Your task to perform on an android device: make emails show in primary in the gmail app Image 0: 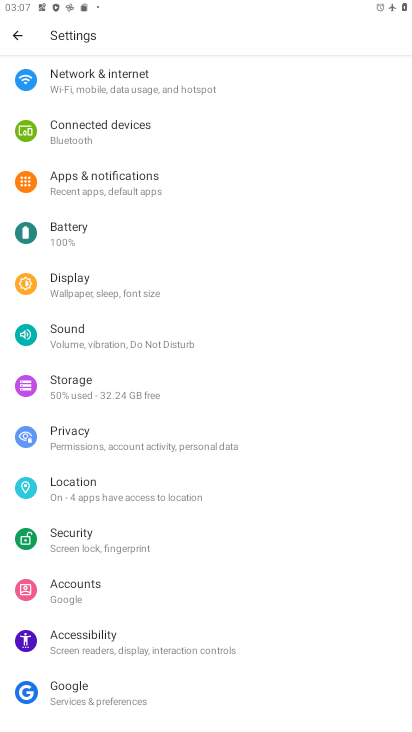
Step 0: drag from (298, 653) to (258, 146)
Your task to perform on an android device: make emails show in primary in the gmail app Image 1: 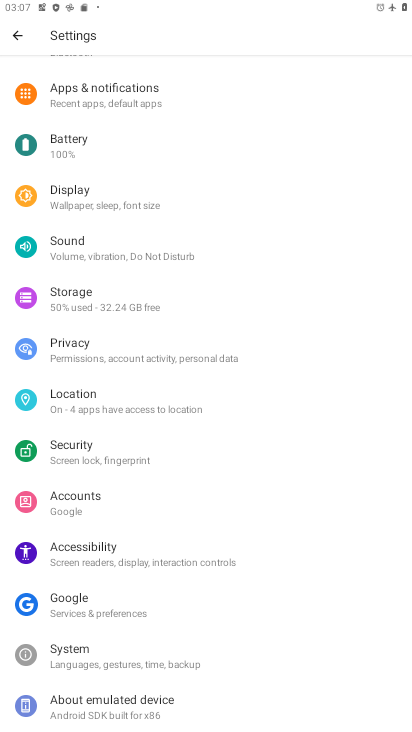
Step 1: press home button
Your task to perform on an android device: make emails show in primary in the gmail app Image 2: 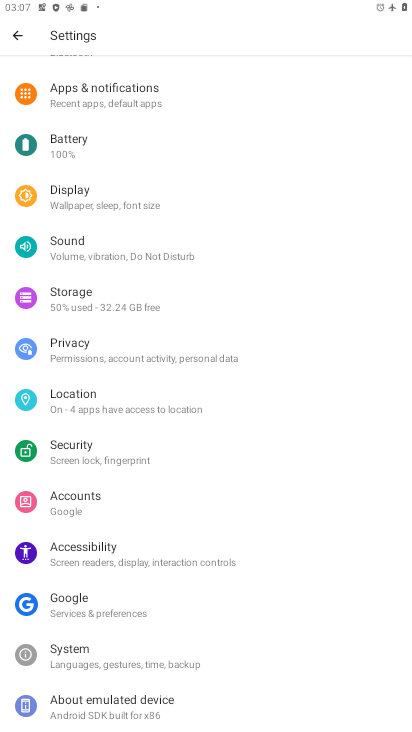
Step 2: press home button
Your task to perform on an android device: make emails show in primary in the gmail app Image 3: 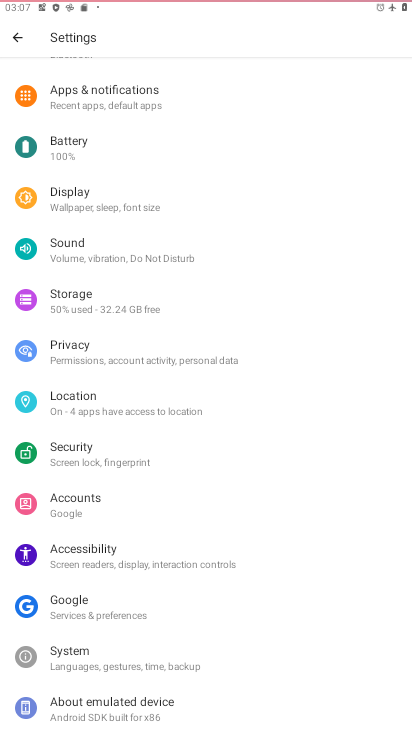
Step 3: drag from (212, 48) to (220, 2)
Your task to perform on an android device: make emails show in primary in the gmail app Image 4: 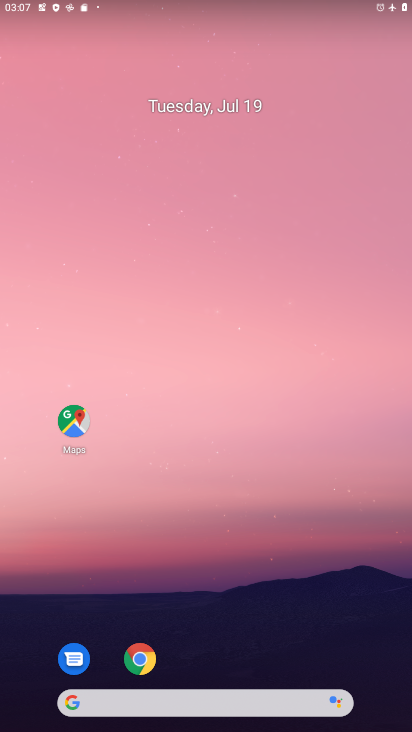
Step 4: drag from (256, 623) to (243, 111)
Your task to perform on an android device: make emails show in primary in the gmail app Image 5: 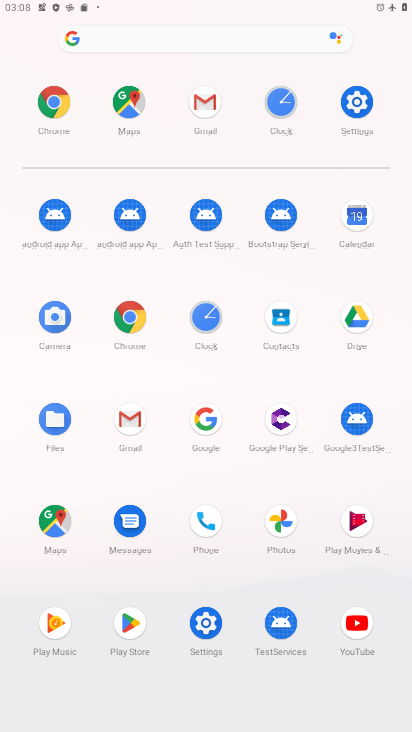
Step 5: click (137, 426)
Your task to perform on an android device: make emails show in primary in the gmail app Image 6: 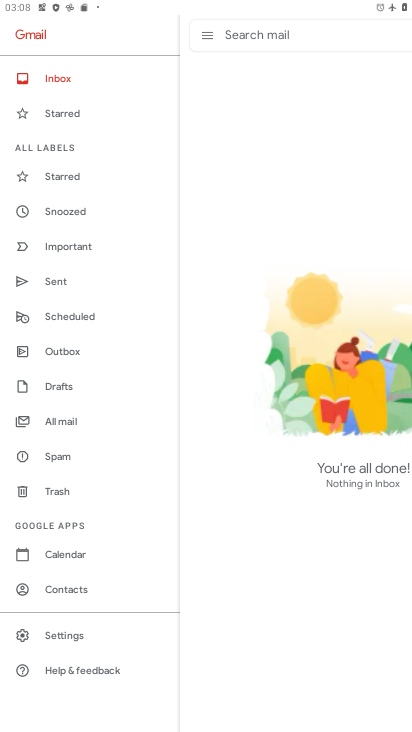
Step 6: task complete